Your task to perform on an android device: change keyboard looks Image 0: 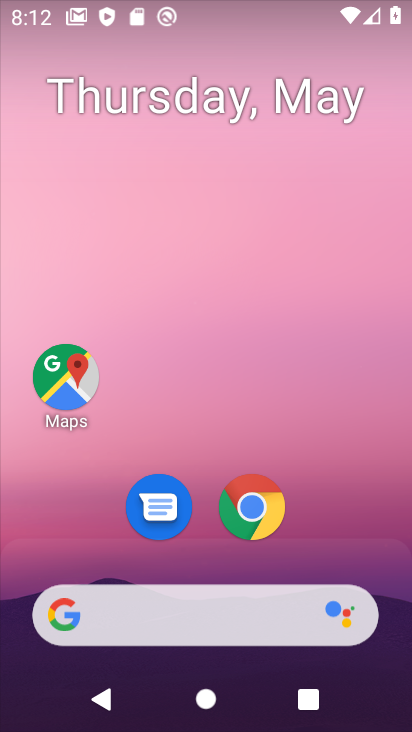
Step 0: drag from (366, 530) to (376, 86)
Your task to perform on an android device: change keyboard looks Image 1: 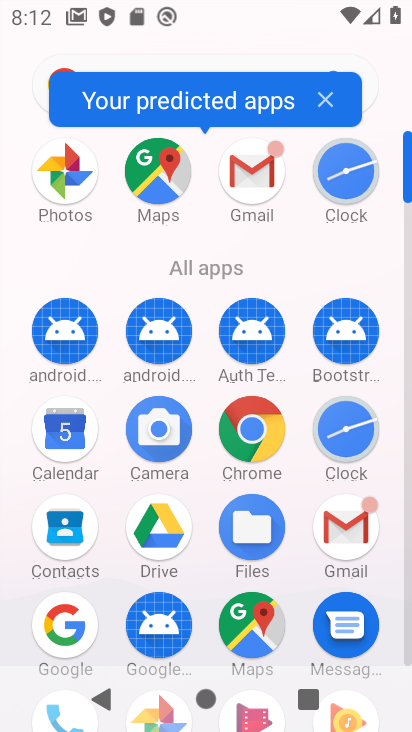
Step 1: drag from (296, 551) to (349, 150)
Your task to perform on an android device: change keyboard looks Image 2: 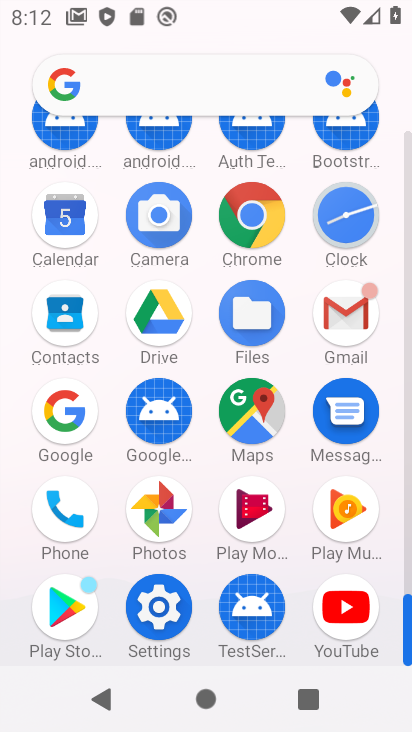
Step 2: click (130, 606)
Your task to perform on an android device: change keyboard looks Image 3: 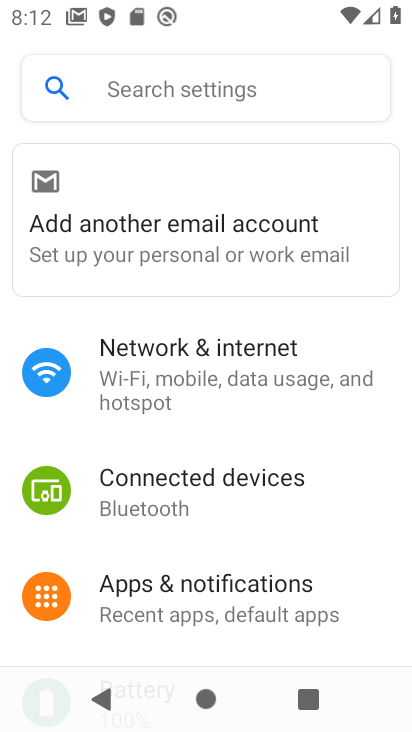
Step 3: drag from (349, 609) to (378, 221)
Your task to perform on an android device: change keyboard looks Image 4: 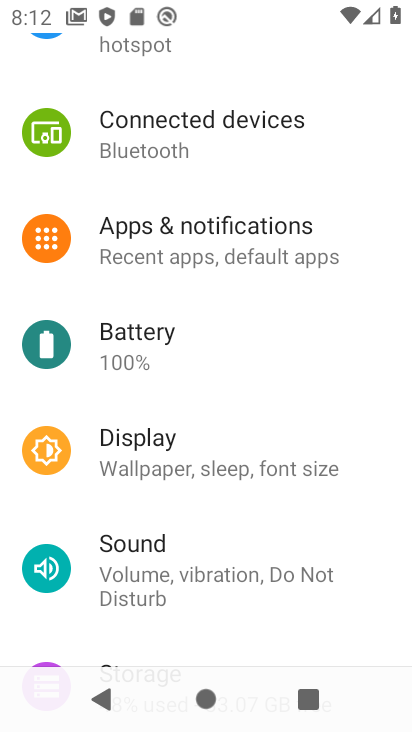
Step 4: drag from (330, 607) to (345, 224)
Your task to perform on an android device: change keyboard looks Image 5: 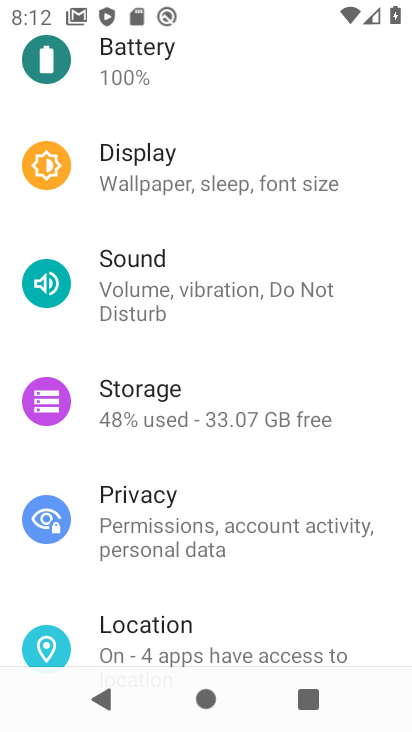
Step 5: drag from (310, 593) to (343, 168)
Your task to perform on an android device: change keyboard looks Image 6: 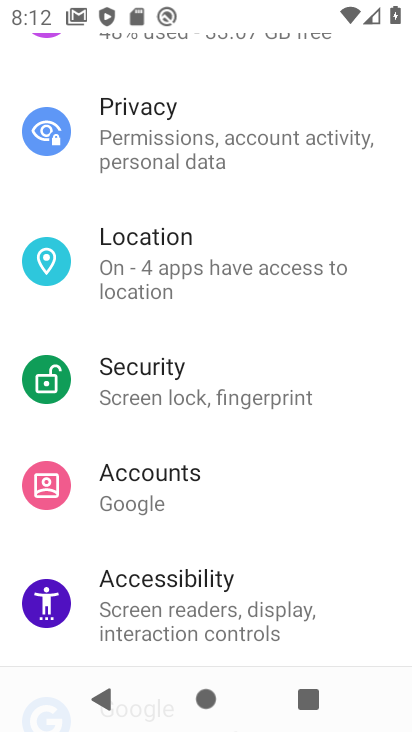
Step 6: drag from (312, 571) to (364, 156)
Your task to perform on an android device: change keyboard looks Image 7: 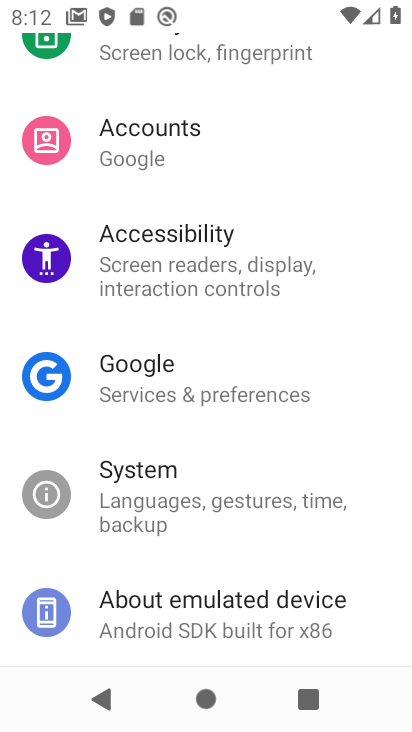
Step 7: drag from (345, 534) to (368, 161)
Your task to perform on an android device: change keyboard looks Image 8: 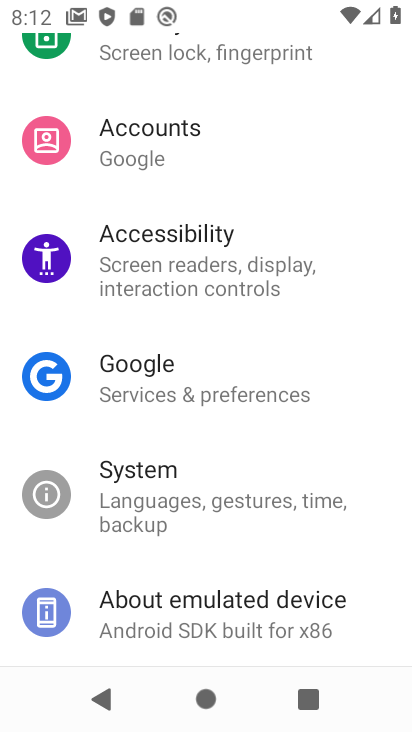
Step 8: click (152, 485)
Your task to perform on an android device: change keyboard looks Image 9: 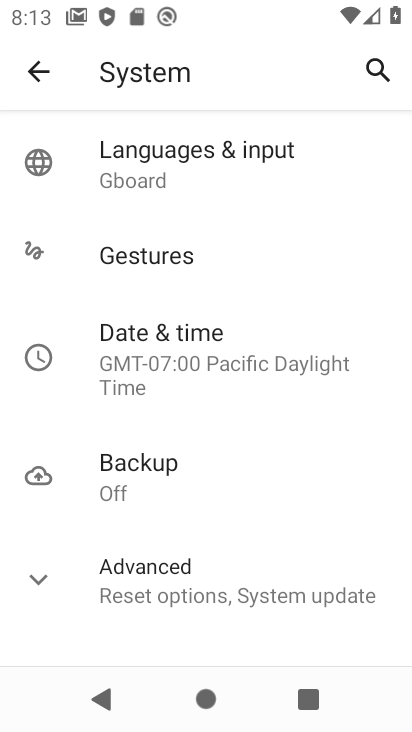
Step 9: click (225, 159)
Your task to perform on an android device: change keyboard looks Image 10: 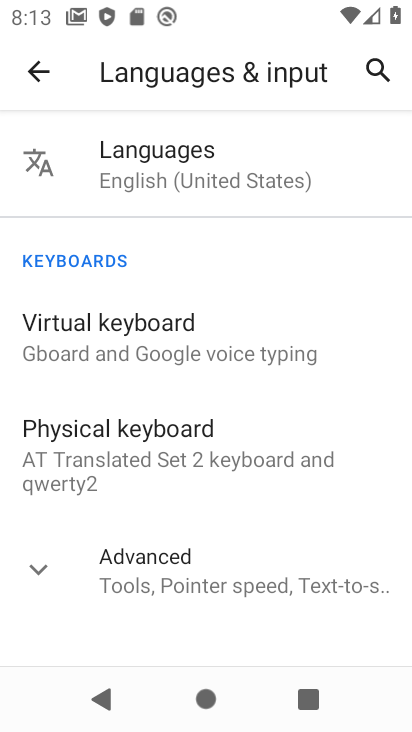
Step 10: click (131, 332)
Your task to perform on an android device: change keyboard looks Image 11: 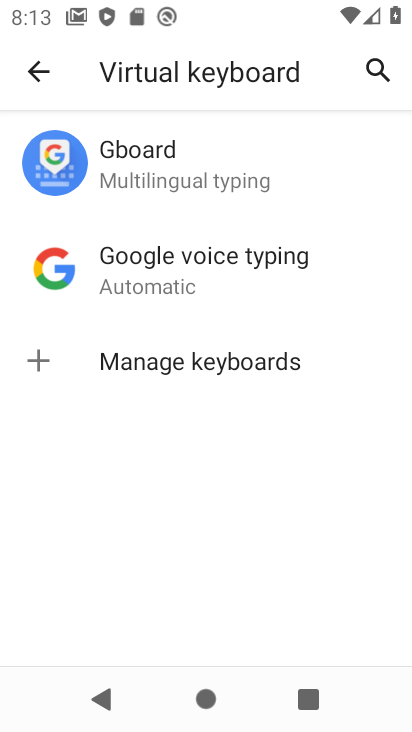
Step 11: click (140, 175)
Your task to perform on an android device: change keyboard looks Image 12: 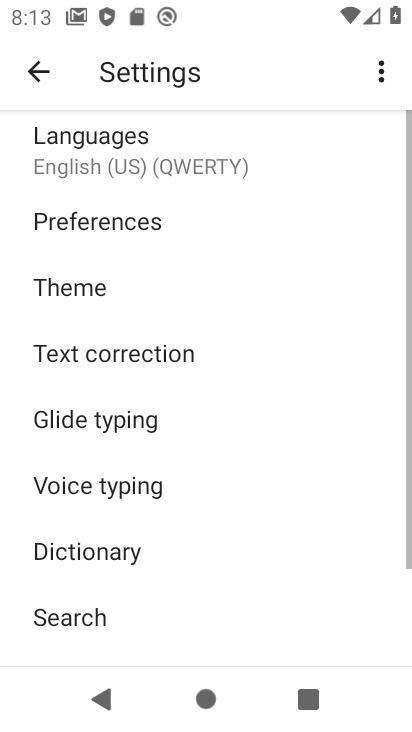
Step 12: drag from (108, 281) to (22, 281)
Your task to perform on an android device: change keyboard looks Image 13: 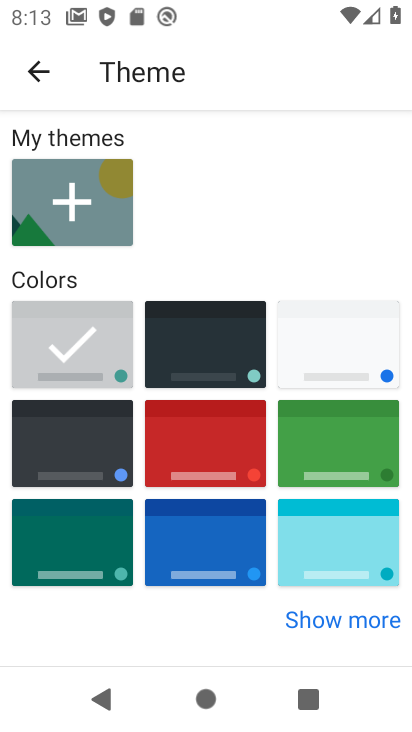
Step 13: click (229, 356)
Your task to perform on an android device: change keyboard looks Image 14: 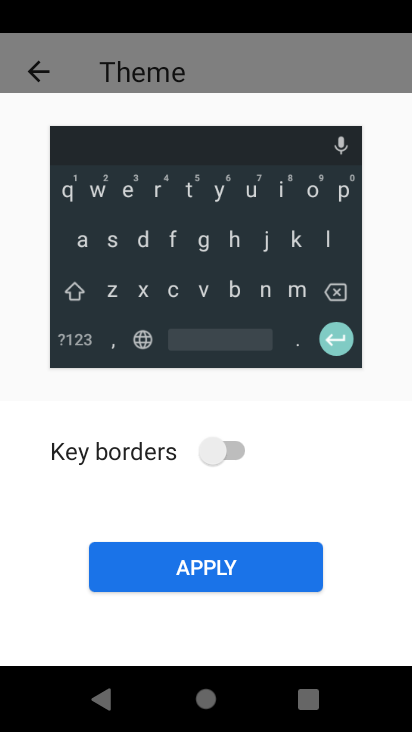
Step 14: click (215, 451)
Your task to perform on an android device: change keyboard looks Image 15: 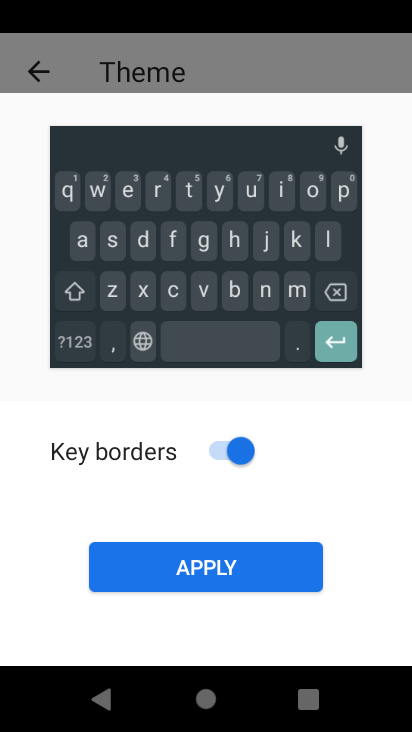
Step 15: click (241, 561)
Your task to perform on an android device: change keyboard looks Image 16: 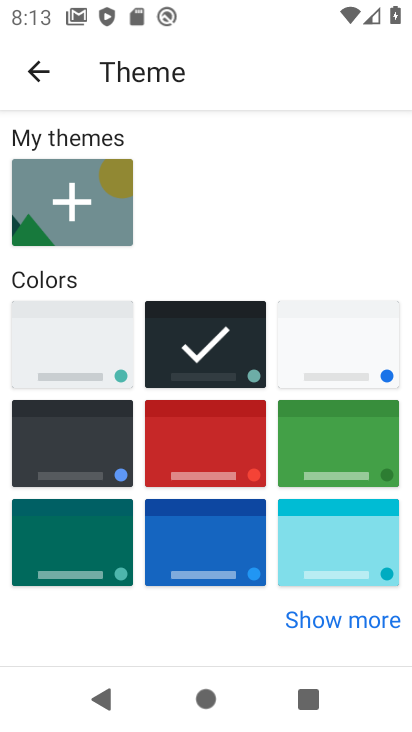
Step 16: task complete